Your task to perform on an android device: Is it going to rain today? Image 0: 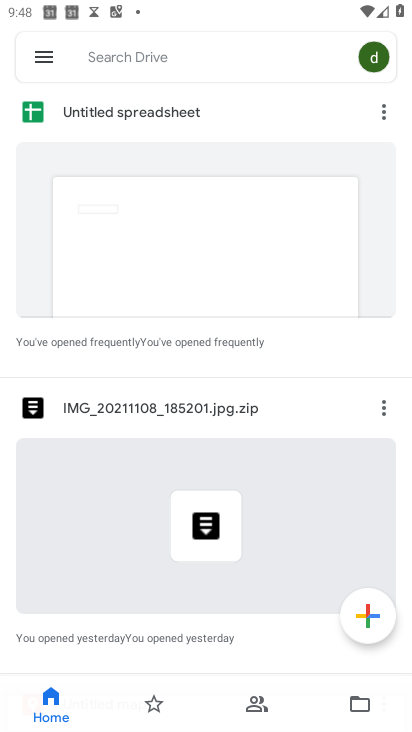
Step 0: press home button
Your task to perform on an android device: Is it going to rain today? Image 1: 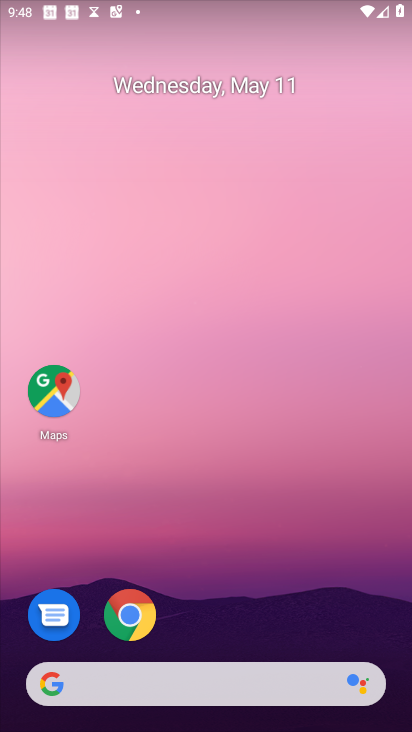
Step 1: drag from (245, 600) to (256, 277)
Your task to perform on an android device: Is it going to rain today? Image 2: 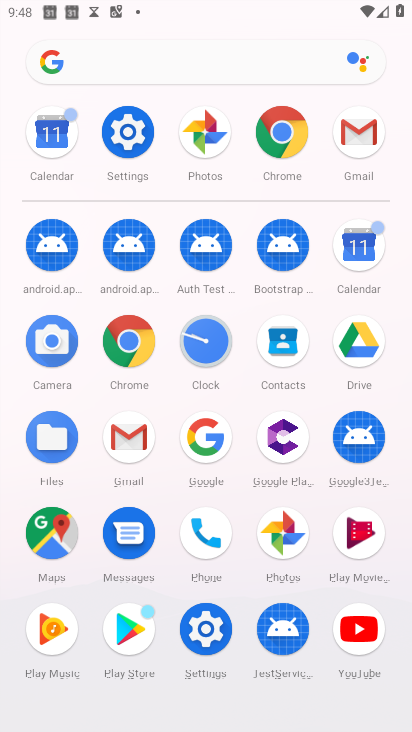
Step 2: click (209, 445)
Your task to perform on an android device: Is it going to rain today? Image 3: 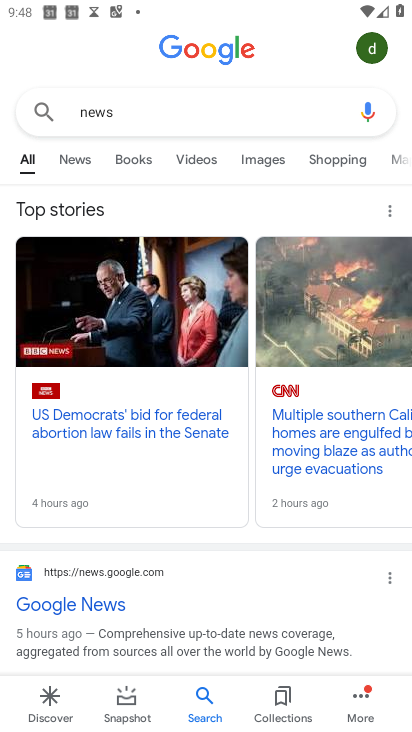
Step 3: drag from (180, 225) to (167, 569)
Your task to perform on an android device: Is it going to rain today? Image 4: 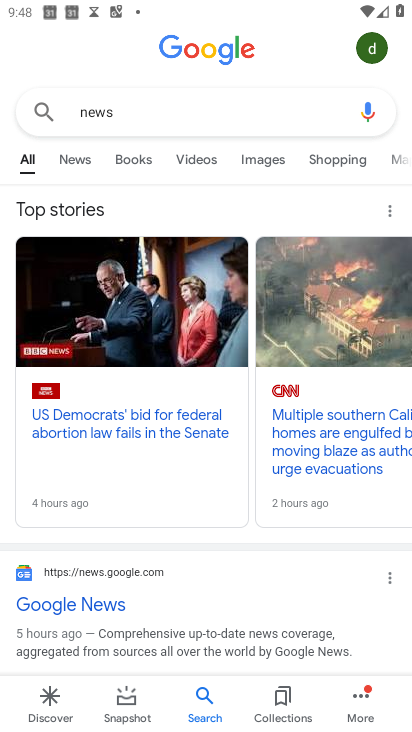
Step 4: click (64, 713)
Your task to perform on an android device: Is it going to rain today? Image 5: 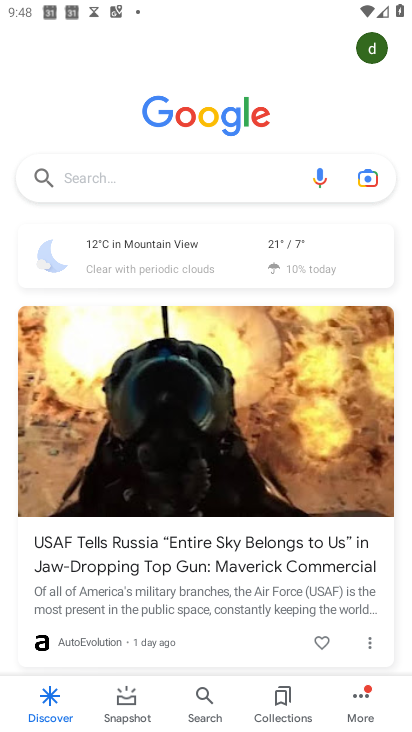
Step 5: click (194, 261)
Your task to perform on an android device: Is it going to rain today? Image 6: 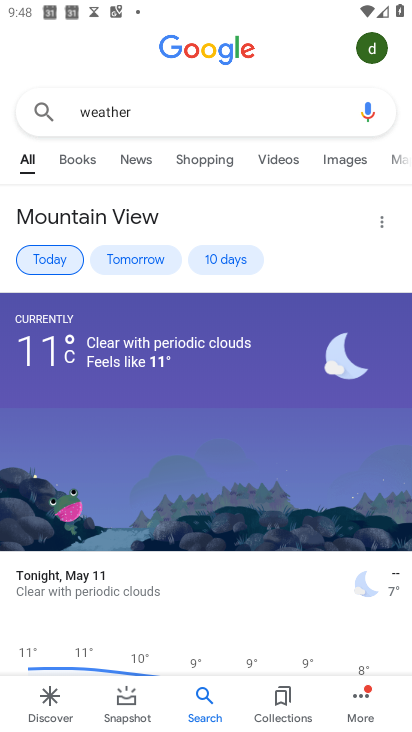
Step 6: task complete